Your task to perform on an android device: turn on notifications settings in the gmail app Image 0: 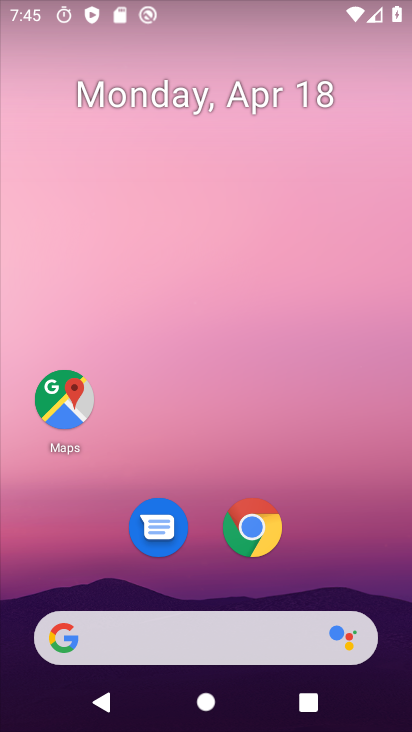
Step 0: drag from (349, 490) to (341, 122)
Your task to perform on an android device: turn on notifications settings in the gmail app Image 1: 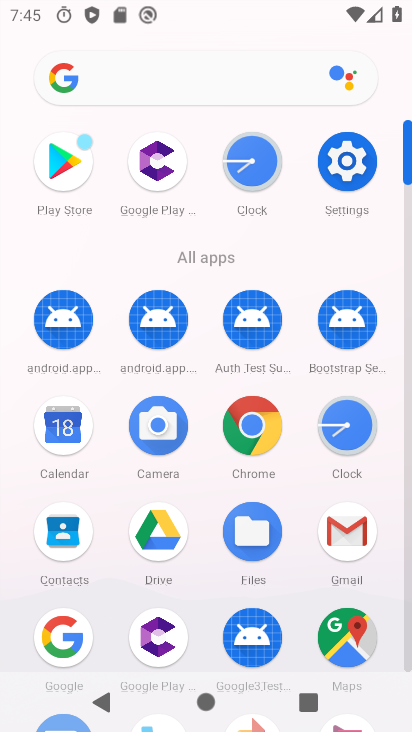
Step 1: click (339, 535)
Your task to perform on an android device: turn on notifications settings in the gmail app Image 2: 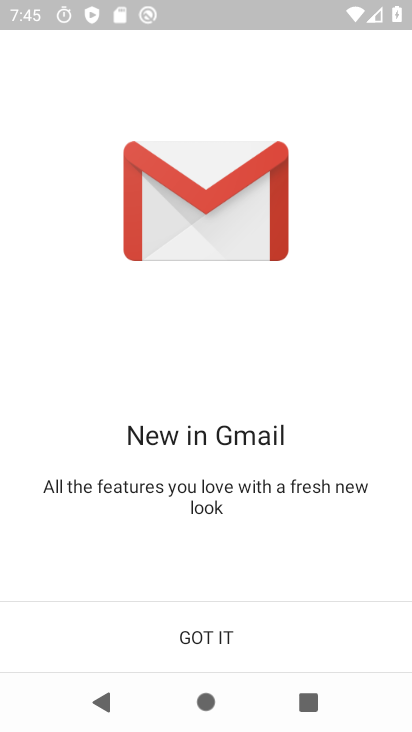
Step 2: click (198, 647)
Your task to perform on an android device: turn on notifications settings in the gmail app Image 3: 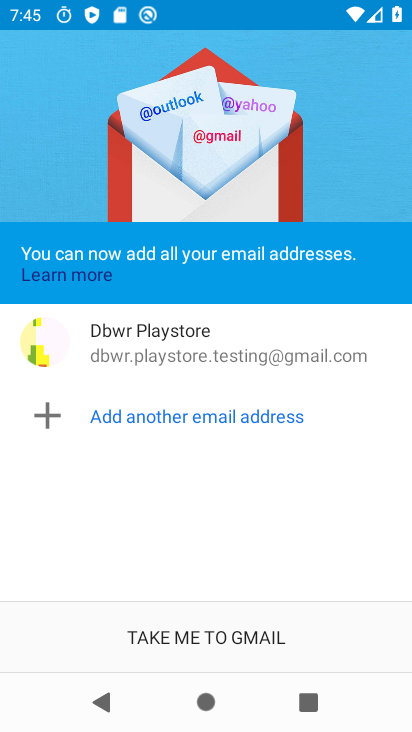
Step 3: click (200, 631)
Your task to perform on an android device: turn on notifications settings in the gmail app Image 4: 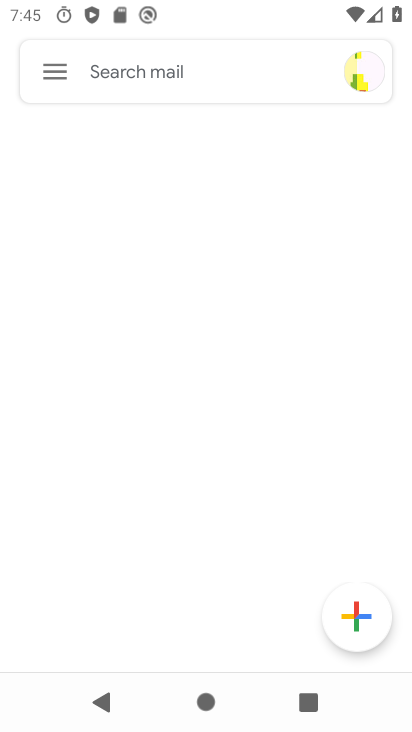
Step 4: click (68, 78)
Your task to perform on an android device: turn on notifications settings in the gmail app Image 5: 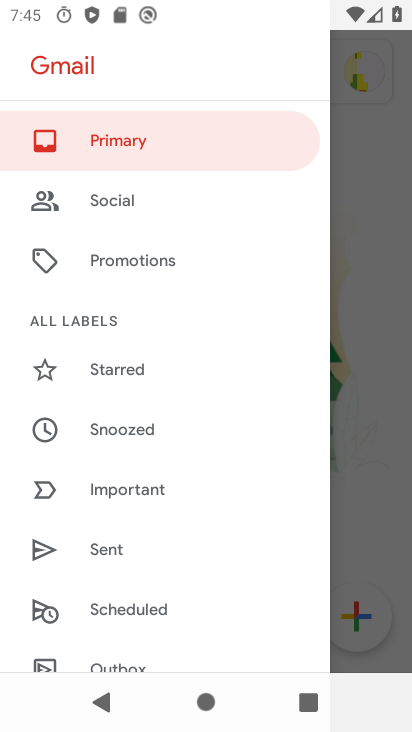
Step 5: drag from (244, 586) to (248, 354)
Your task to perform on an android device: turn on notifications settings in the gmail app Image 6: 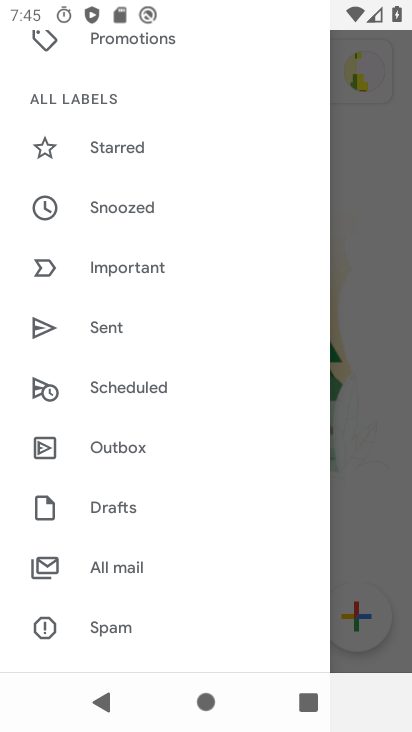
Step 6: drag from (235, 523) to (235, 235)
Your task to perform on an android device: turn on notifications settings in the gmail app Image 7: 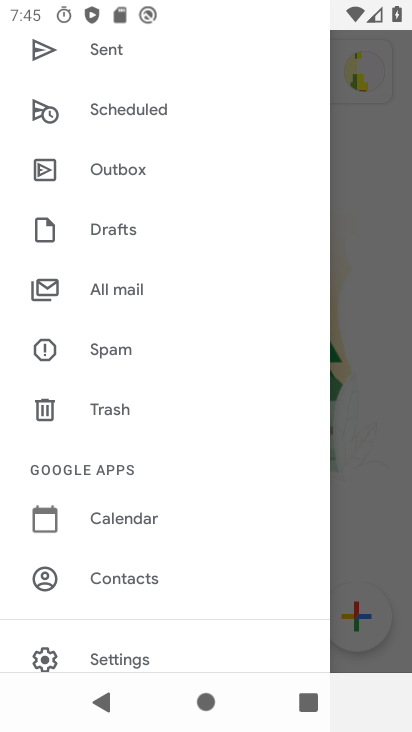
Step 7: click (135, 655)
Your task to perform on an android device: turn on notifications settings in the gmail app Image 8: 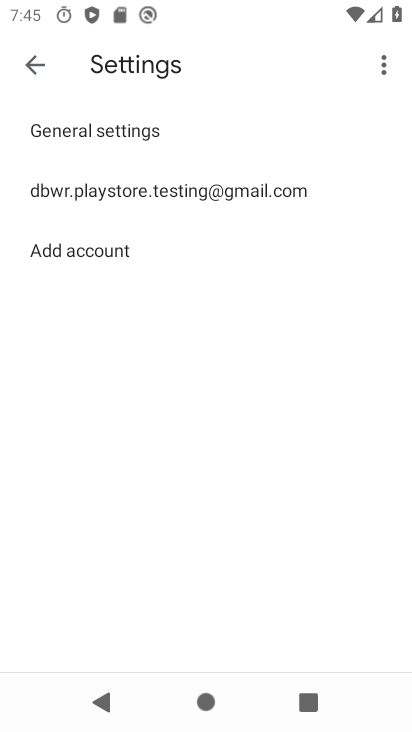
Step 8: click (248, 190)
Your task to perform on an android device: turn on notifications settings in the gmail app Image 9: 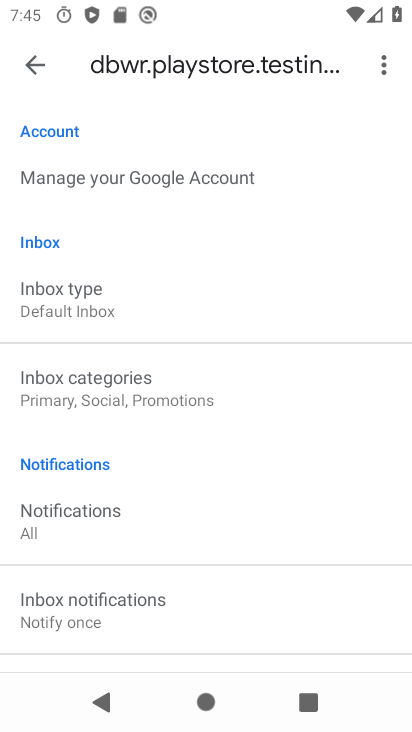
Step 9: click (98, 525)
Your task to perform on an android device: turn on notifications settings in the gmail app Image 10: 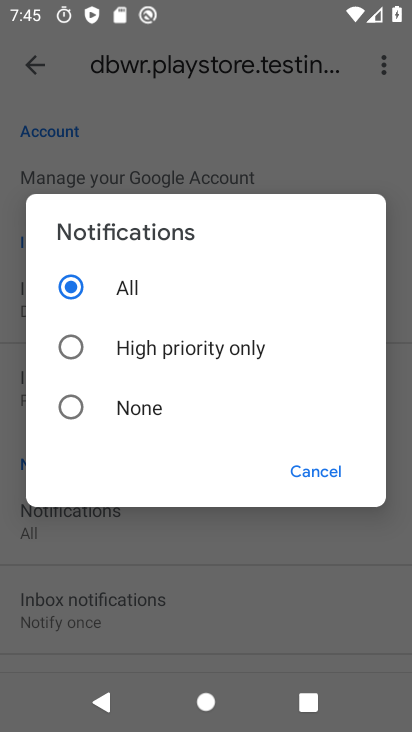
Step 10: task complete